Your task to perform on an android device: make emails show in primary in the gmail app Image 0: 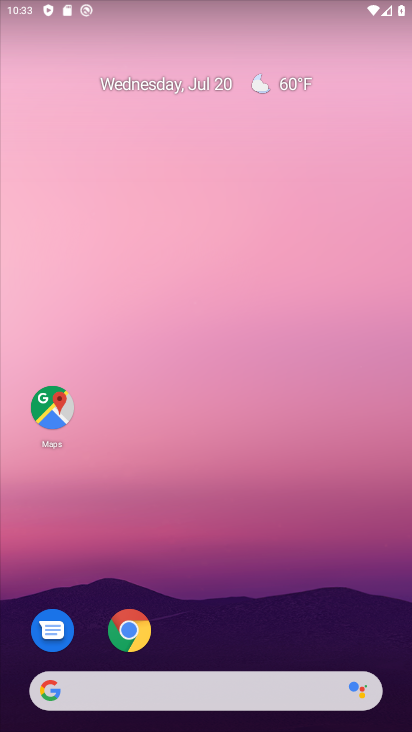
Step 0: drag from (218, 726) to (149, 144)
Your task to perform on an android device: make emails show in primary in the gmail app Image 1: 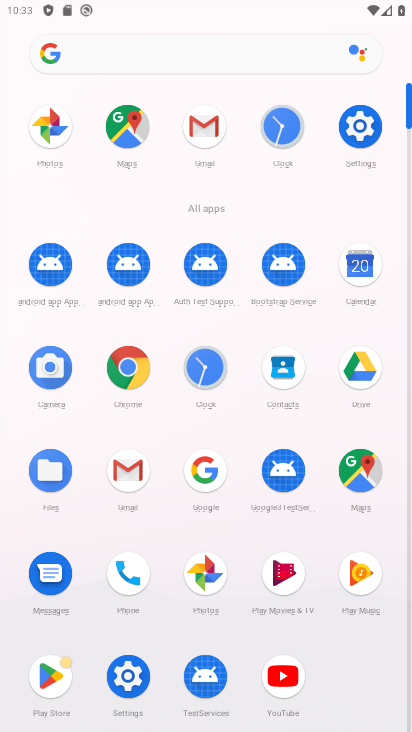
Step 1: click (132, 469)
Your task to perform on an android device: make emails show in primary in the gmail app Image 2: 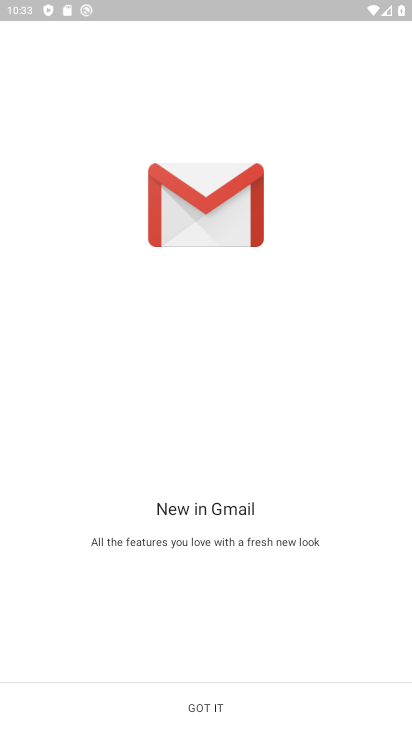
Step 2: click (189, 704)
Your task to perform on an android device: make emails show in primary in the gmail app Image 3: 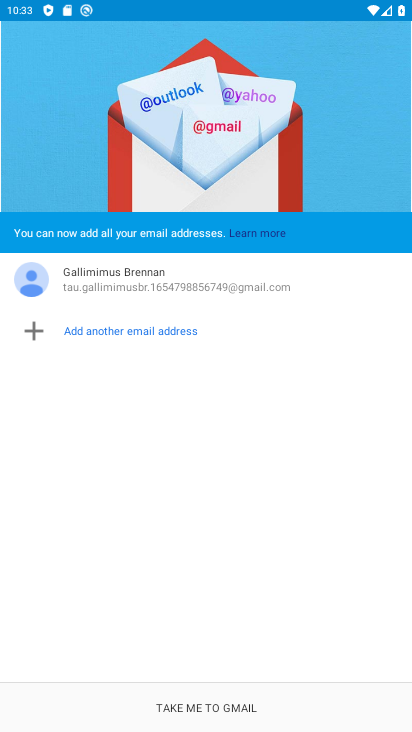
Step 3: click (189, 704)
Your task to perform on an android device: make emails show in primary in the gmail app Image 4: 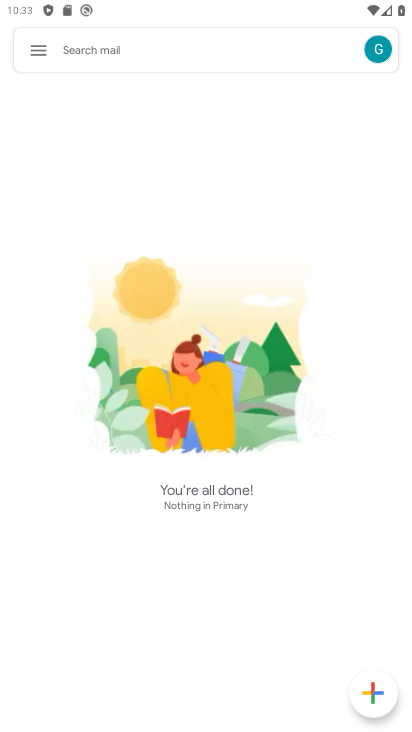
Step 4: click (36, 48)
Your task to perform on an android device: make emails show in primary in the gmail app Image 5: 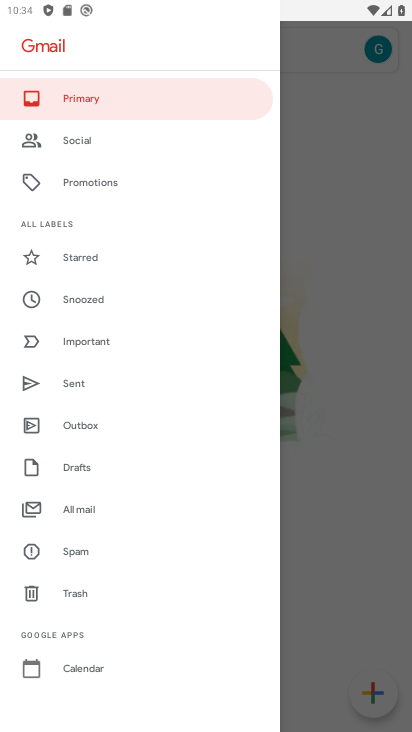
Step 5: drag from (112, 669) to (112, 367)
Your task to perform on an android device: make emails show in primary in the gmail app Image 6: 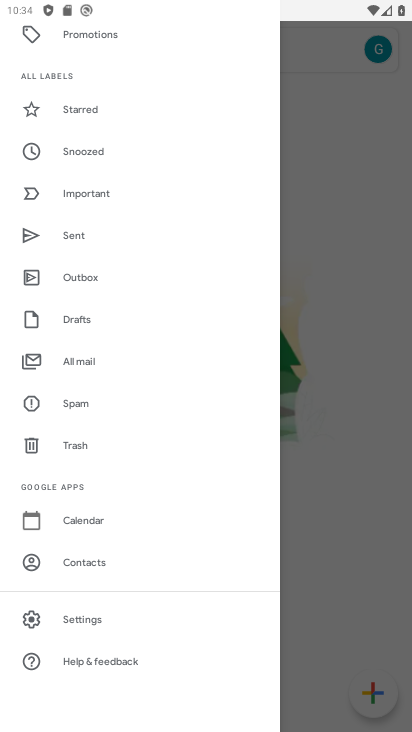
Step 6: click (83, 618)
Your task to perform on an android device: make emails show in primary in the gmail app Image 7: 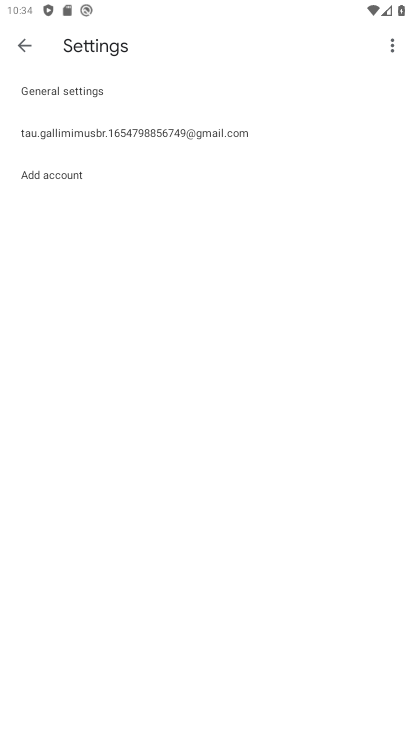
Step 7: click (114, 128)
Your task to perform on an android device: make emails show in primary in the gmail app Image 8: 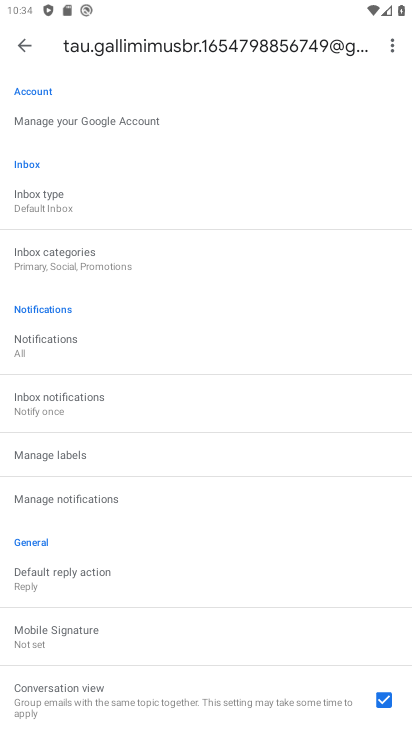
Step 8: click (68, 253)
Your task to perform on an android device: make emails show in primary in the gmail app Image 9: 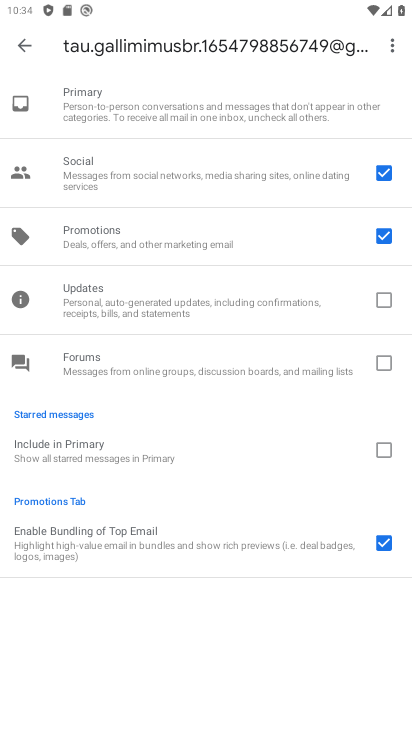
Step 9: click (379, 170)
Your task to perform on an android device: make emails show in primary in the gmail app Image 10: 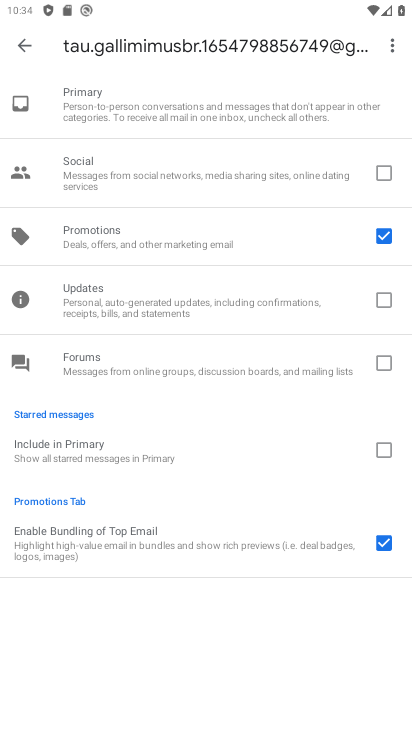
Step 10: click (381, 236)
Your task to perform on an android device: make emails show in primary in the gmail app Image 11: 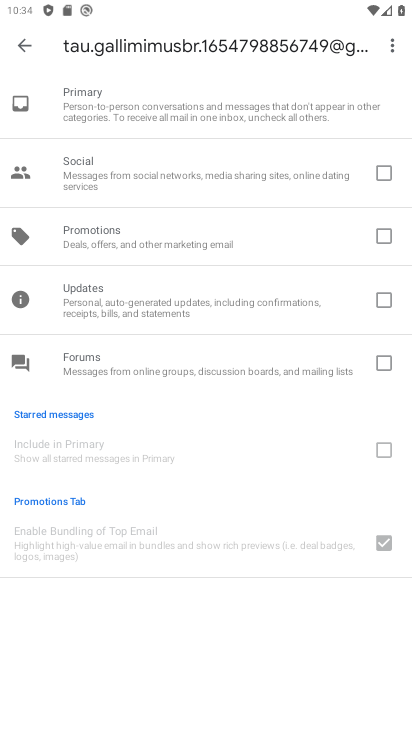
Step 11: click (22, 46)
Your task to perform on an android device: make emails show in primary in the gmail app Image 12: 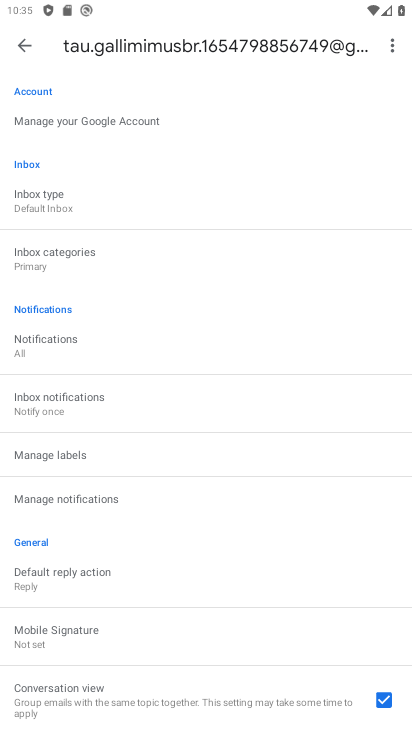
Step 12: task complete